Your task to perform on an android device: Do I have any events this weekend? Image 0: 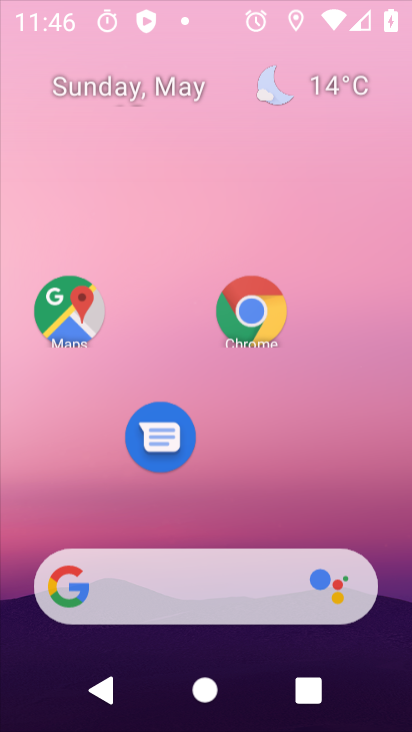
Step 0: press home button
Your task to perform on an android device: Do I have any events this weekend? Image 1: 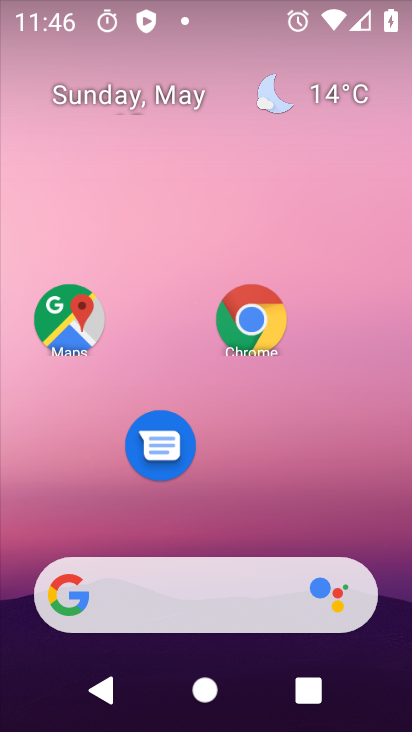
Step 1: drag from (216, 588) to (404, 224)
Your task to perform on an android device: Do I have any events this weekend? Image 2: 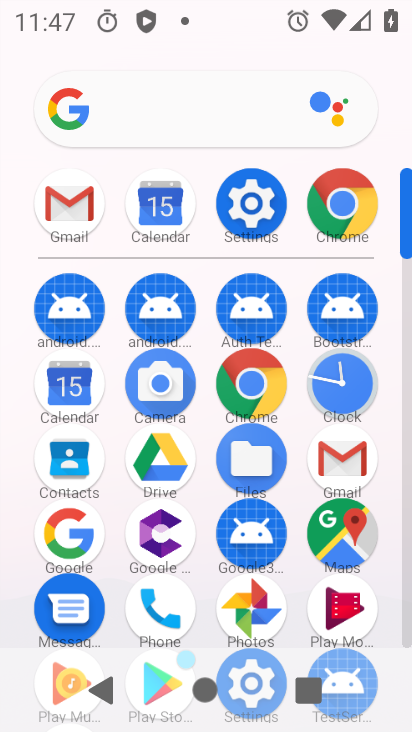
Step 2: click (164, 230)
Your task to perform on an android device: Do I have any events this weekend? Image 3: 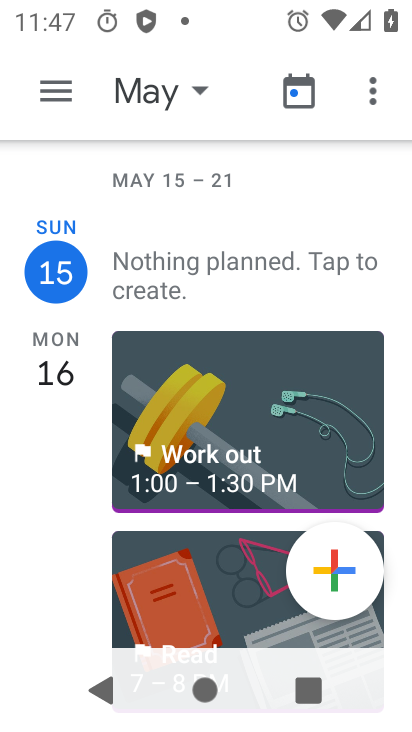
Step 3: click (140, 83)
Your task to perform on an android device: Do I have any events this weekend? Image 4: 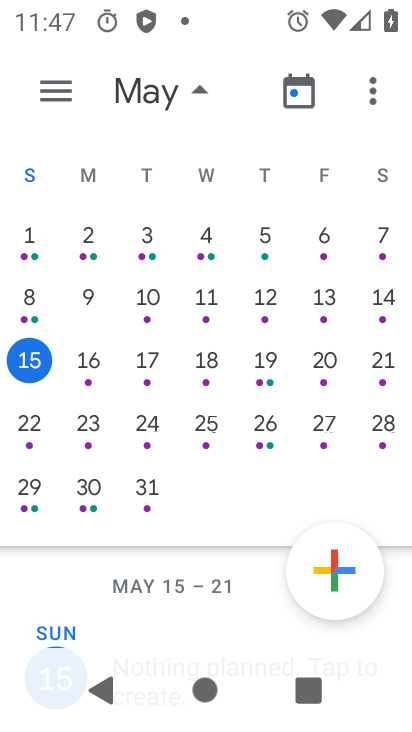
Step 4: click (381, 359)
Your task to perform on an android device: Do I have any events this weekend? Image 5: 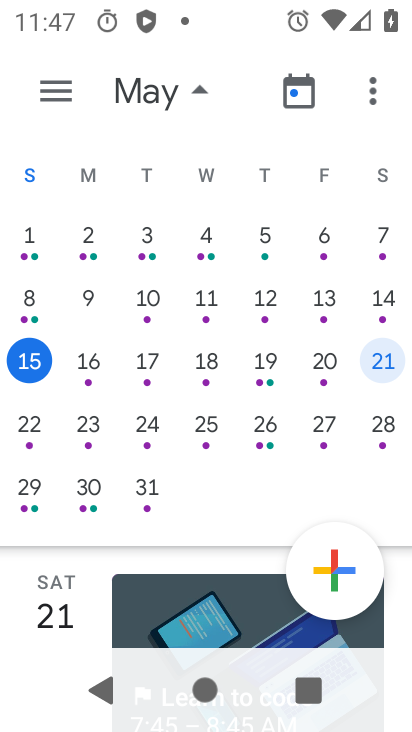
Step 5: click (45, 83)
Your task to perform on an android device: Do I have any events this weekend? Image 6: 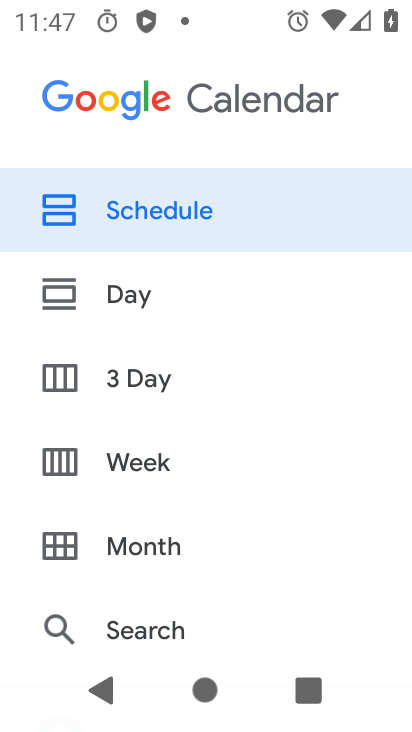
Step 6: click (170, 214)
Your task to perform on an android device: Do I have any events this weekend? Image 7: 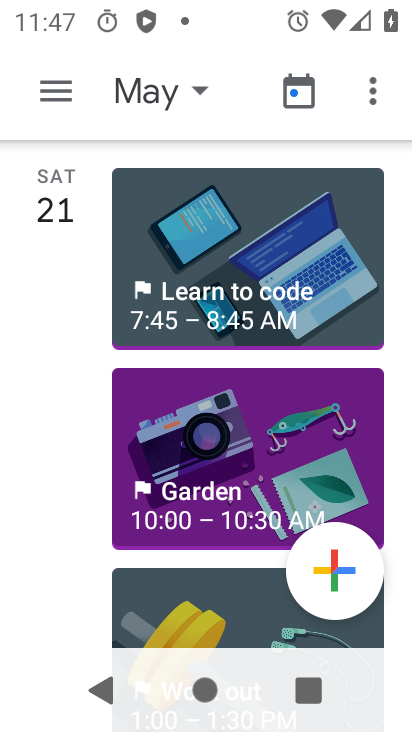
Step 7: click (231, 461)
Your task to perform on an android device: Do I have any events this weekend? Image 8: 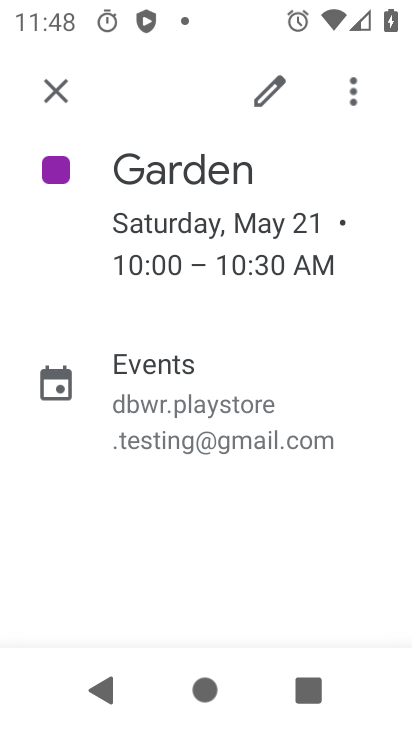
Step 8: task complete